Your task to perform on an android device: turn off translation in the chrome app Image 0: 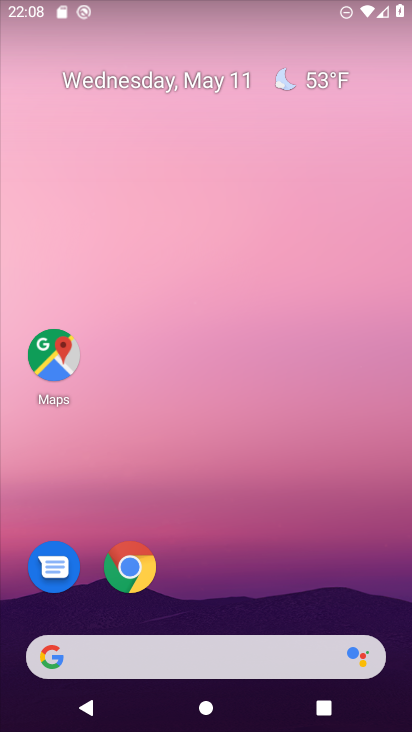
Step 0: click (131, 562)
Your task to perform on an android device: turn off translation in the chrome app Image 1: 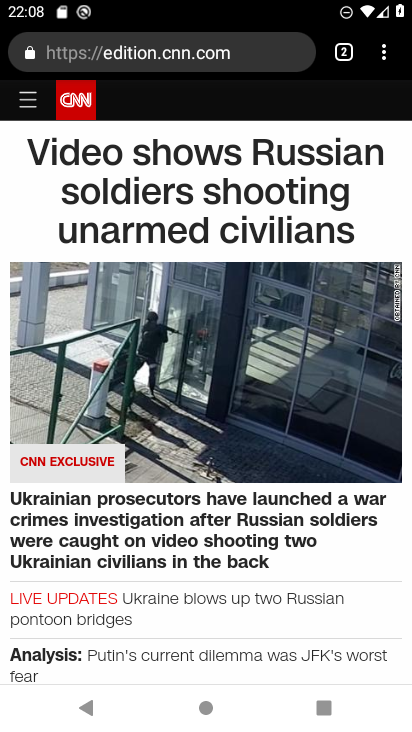
Step 1: click (385, 56)
Your task to perform on an android device: turn off translation in the chrome app Image 2: 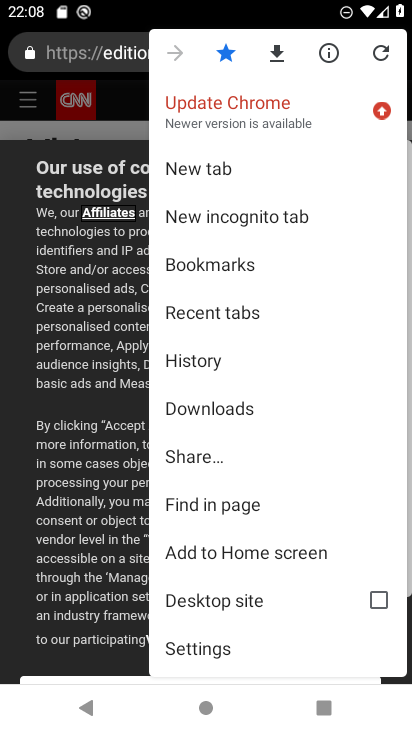
Step 2: click (224, 645)
Your task to perform on an android device: turn off translation in the chrome app Image 3: 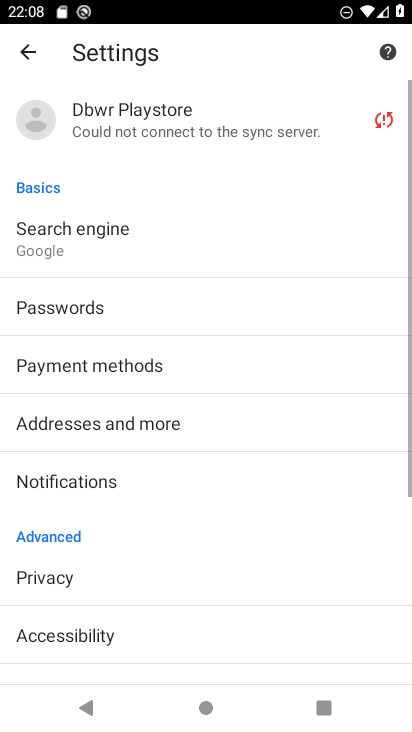
Step 3: drag from (219, 515) to (217, 111)
Your task to perform on an android device: turn off translation in the chrome app Image 4: 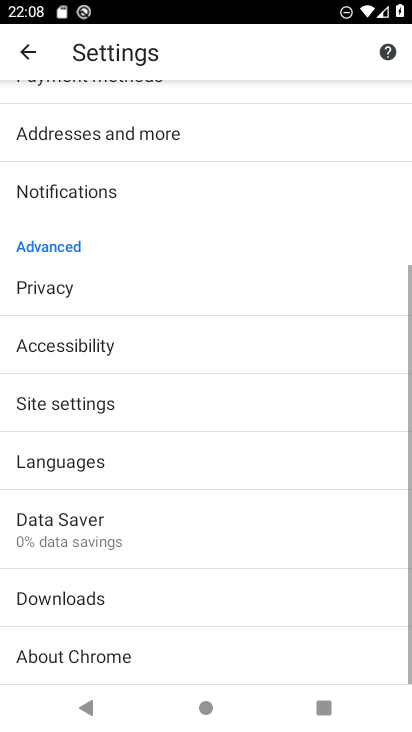
Step 4: click (128, 453)
Your task to perform on an android device: turn off translation in the chrome app Image 5: 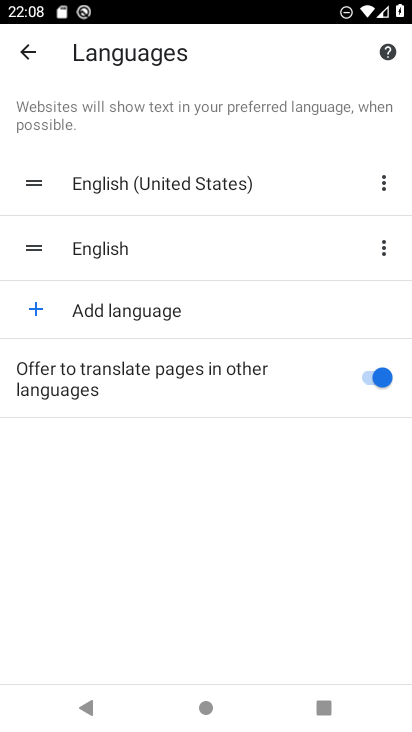
Step 5: click (379, 378)
Your task to perform on an android device: turn off translation in the chrome app Image 6: 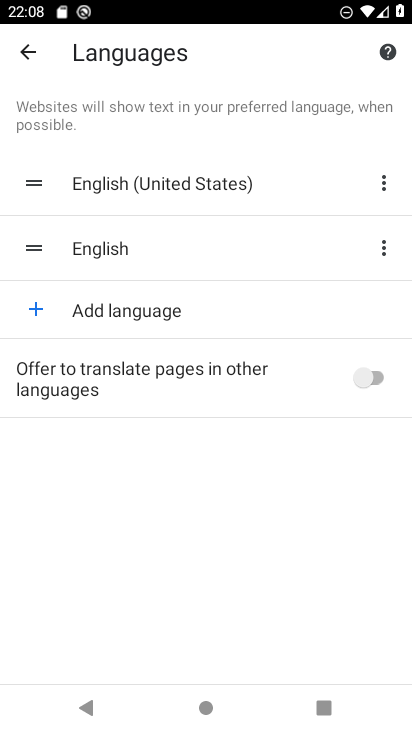
Step 6: task complete